Your task to perform on an android device: Open ESPN.com Image 0: 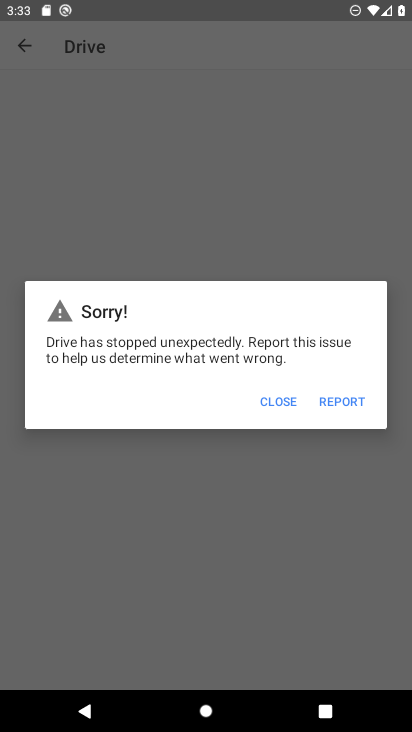
Step 0: press home button
Your task to perform on an android device: Open ESPN.com Image 1: 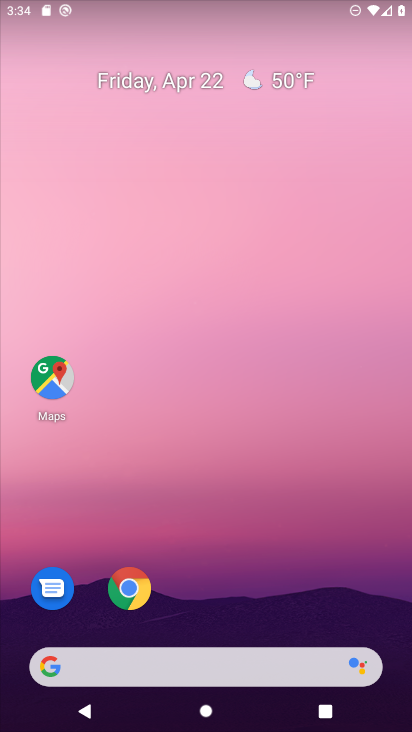
Step 1: click (242, 669)
Your task to perform on an android device: Open ESPN.com Image 2: 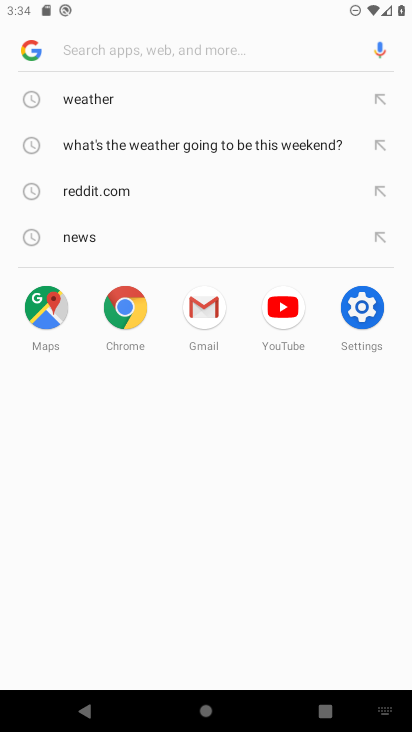
Step 2: type "ESPN.com"
Your task to perform on an android device: Open ESPN.com Image 3: 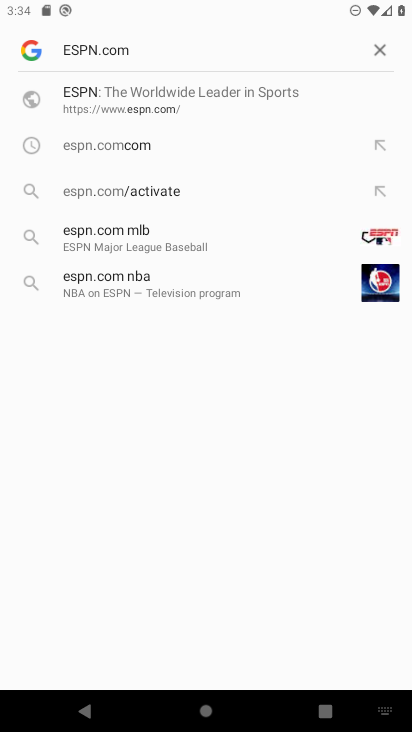
Step 3: click (152, 115)
Your task to perform on an android device: Open ESPN.com Image 4: 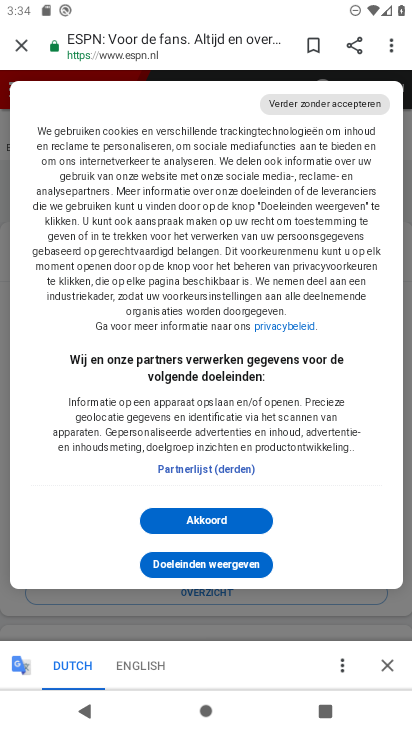
Step 4: task complete